Your task to perform on an android device: What is the recent news? Image 0: 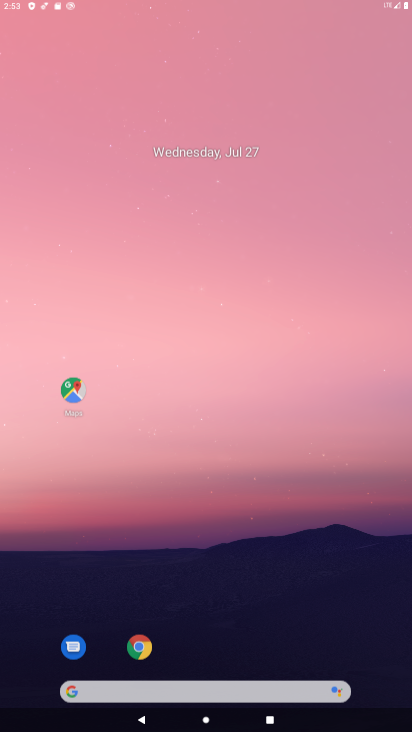
Step 0: click (271, 96)
Your task to perform on an android device: What is the recent news? Image 1: 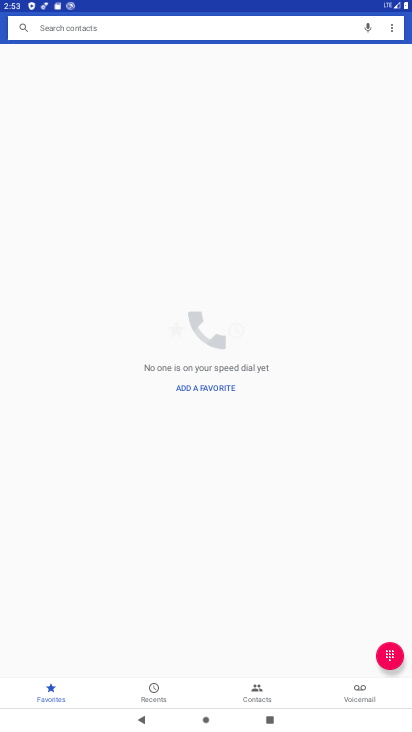
Step 1: press home button
Your task to perform on an android device: What is the recent news? Image 2: 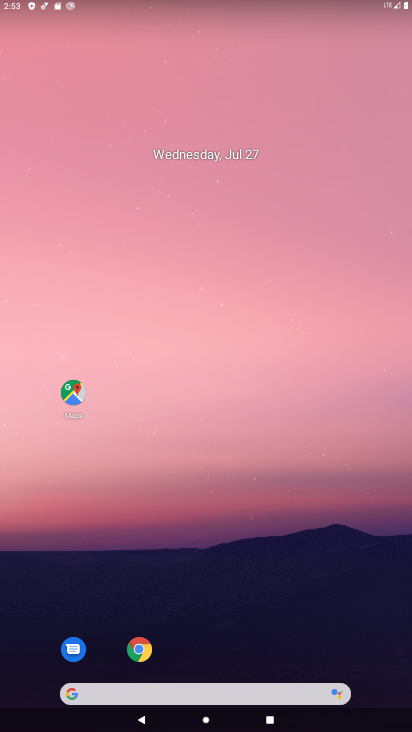
Step 2: click (136, 644)
Your task to perform on an android device: What is the recent news? Image 3: 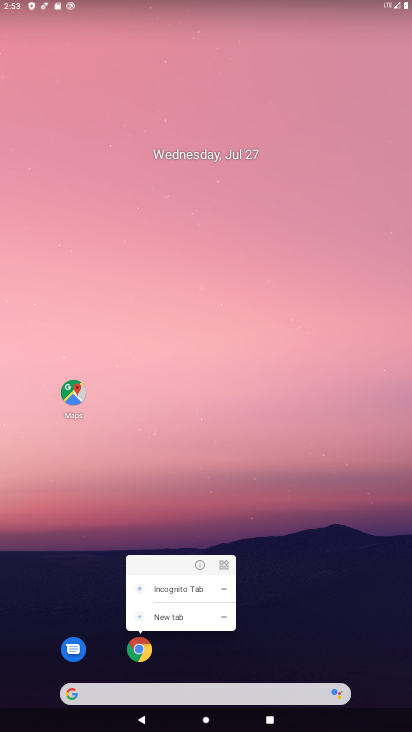
Step 3: click (133, 648)
Your task to perform on an android device: What is the recent news? Image 4: 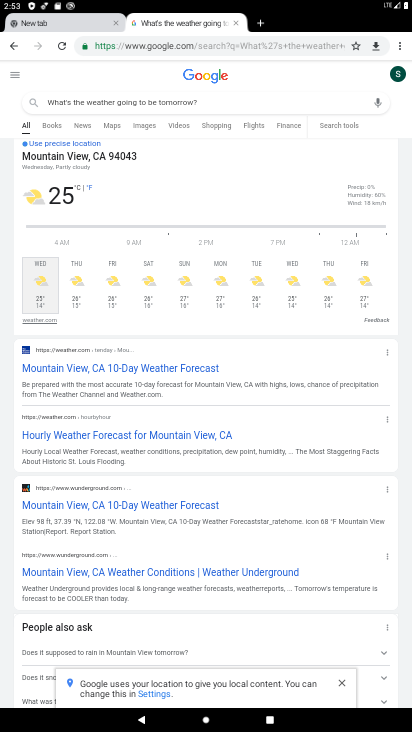
Step 4: click (167, 43)
Your task to perform on an android device: What is the recent news? Image 5: 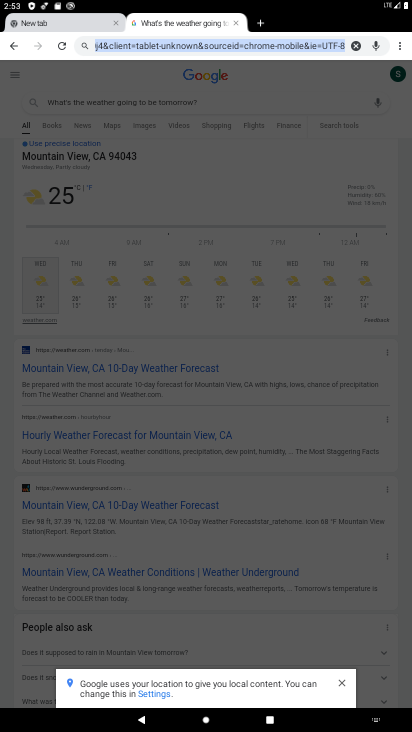
Step 5: type "What is the recent news?"
Your task to perform on an android device: What is the recent news? Image 6: 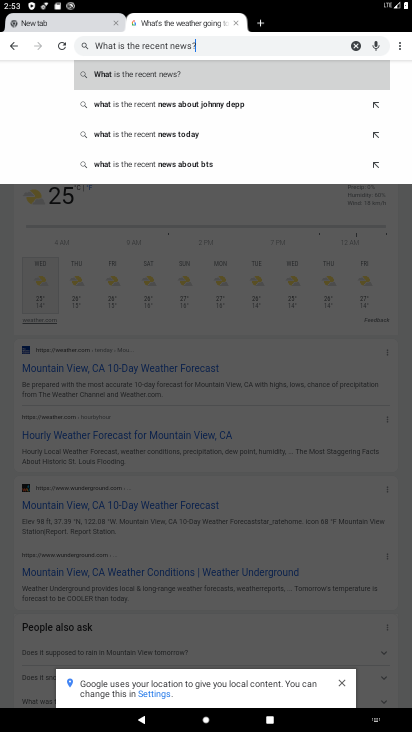
Step 6: click (153, 75)
Your task to perform on an android device: What is the recent news? Image 7: 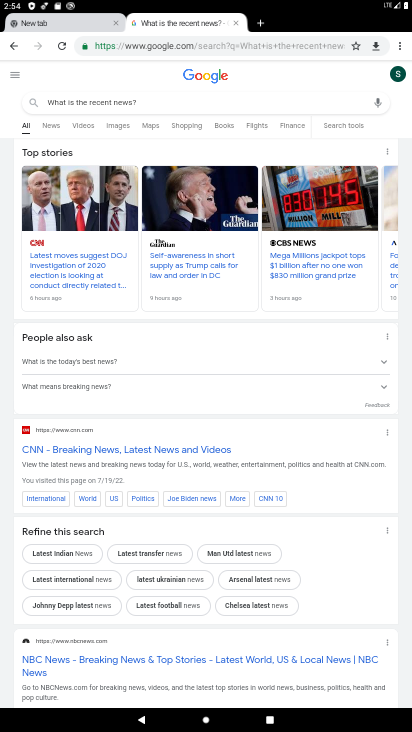
Step 7: click (39, 123)
Your task to perform on an android device: What is the recent news? Image 8: 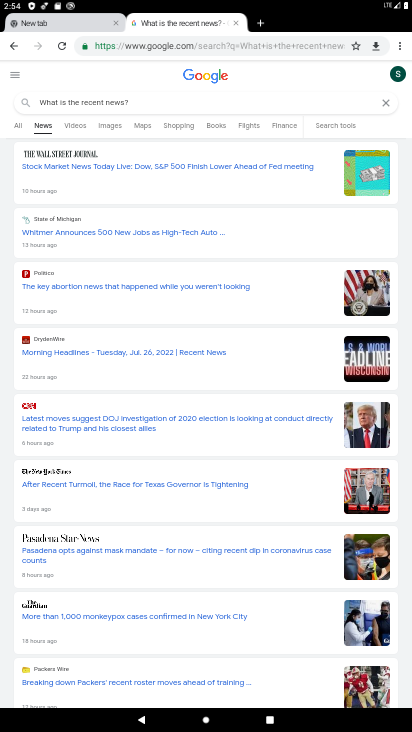
Step 8: task complete